Your task to perform on an android device: turn off location history Image 0: 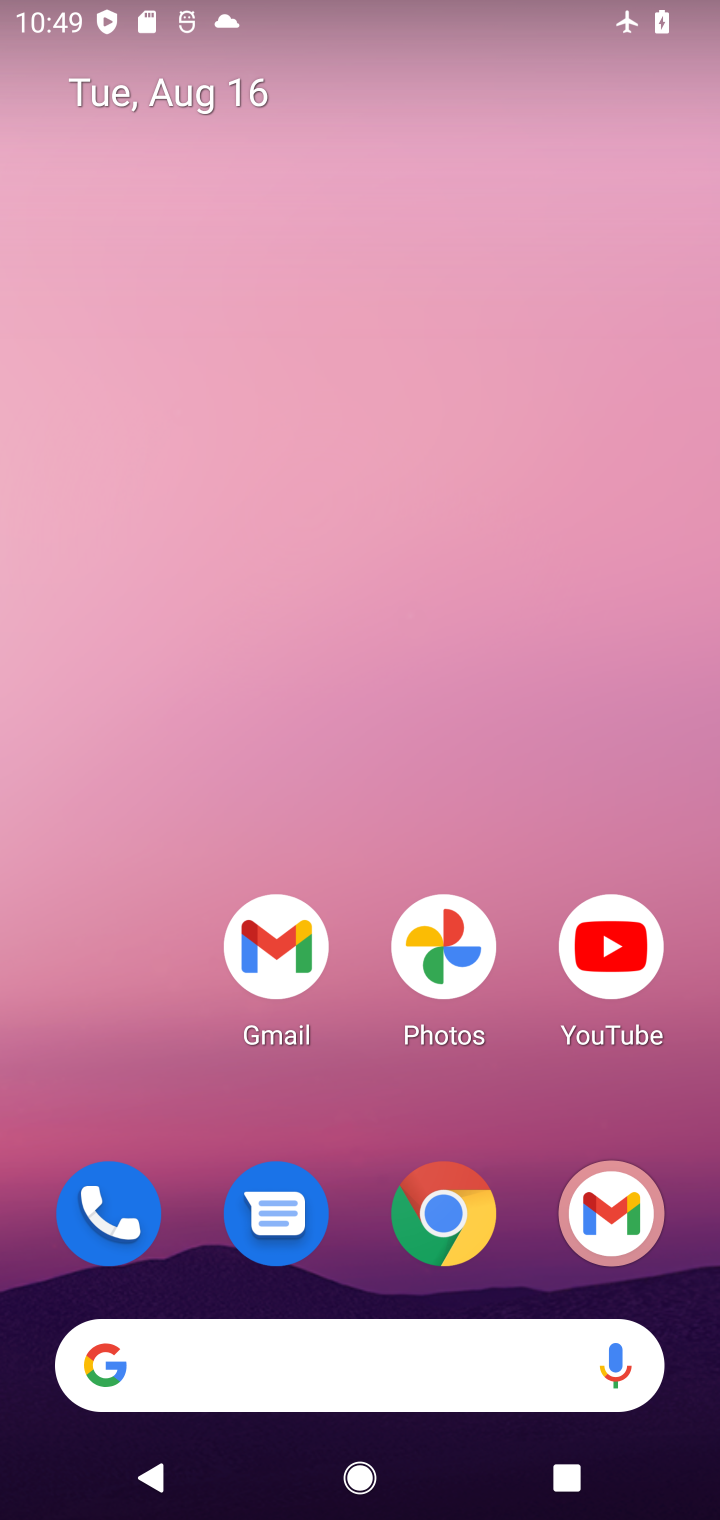
Step 0: drag from (397, 990) to (423, 466)
Your task to perform on an android device: turn off location history Image 1: 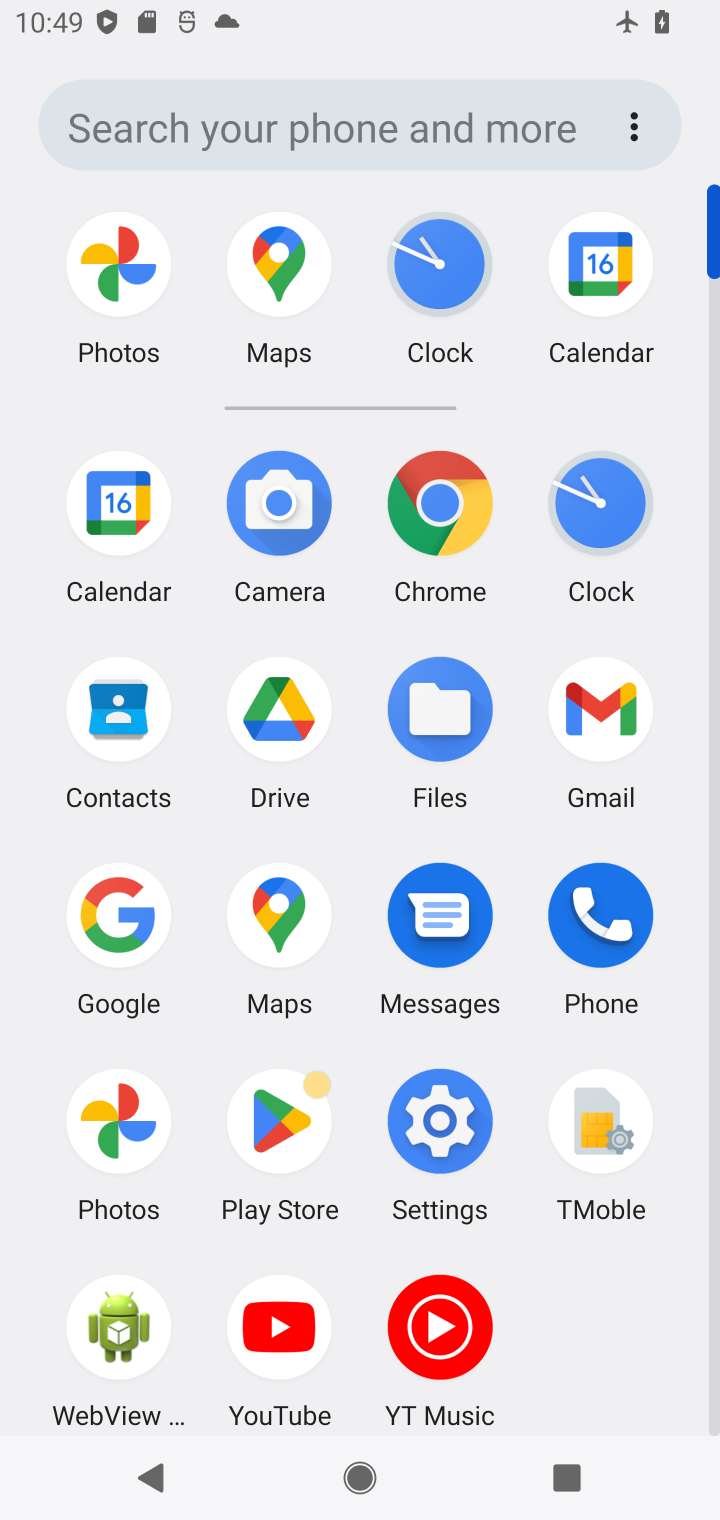
Step 1: click (450, 1101)
Your task to perform on an android device: turn off location history Image 2: 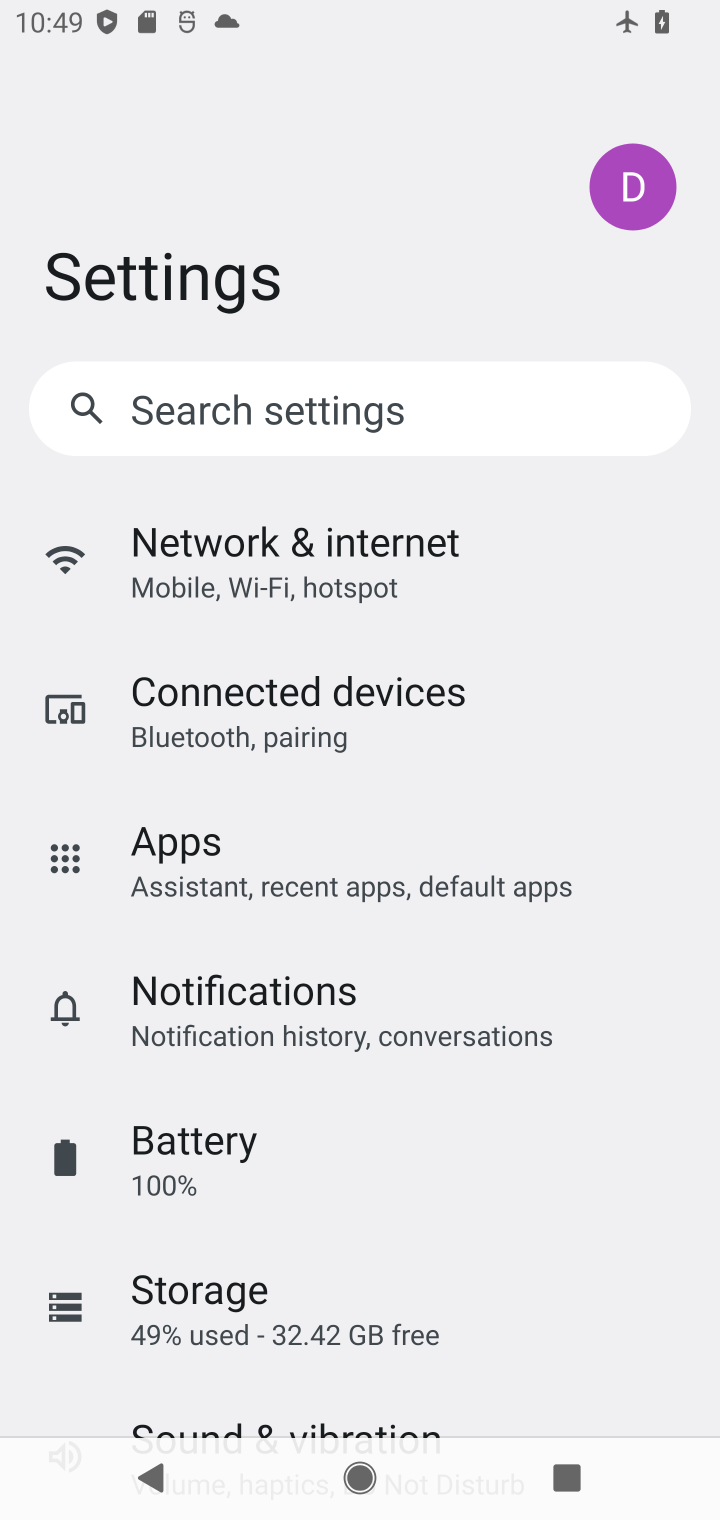
Step 2: drag from (244, 1323) to (311, 493)
Your task to perform on an android device: turn off location history Image 3: 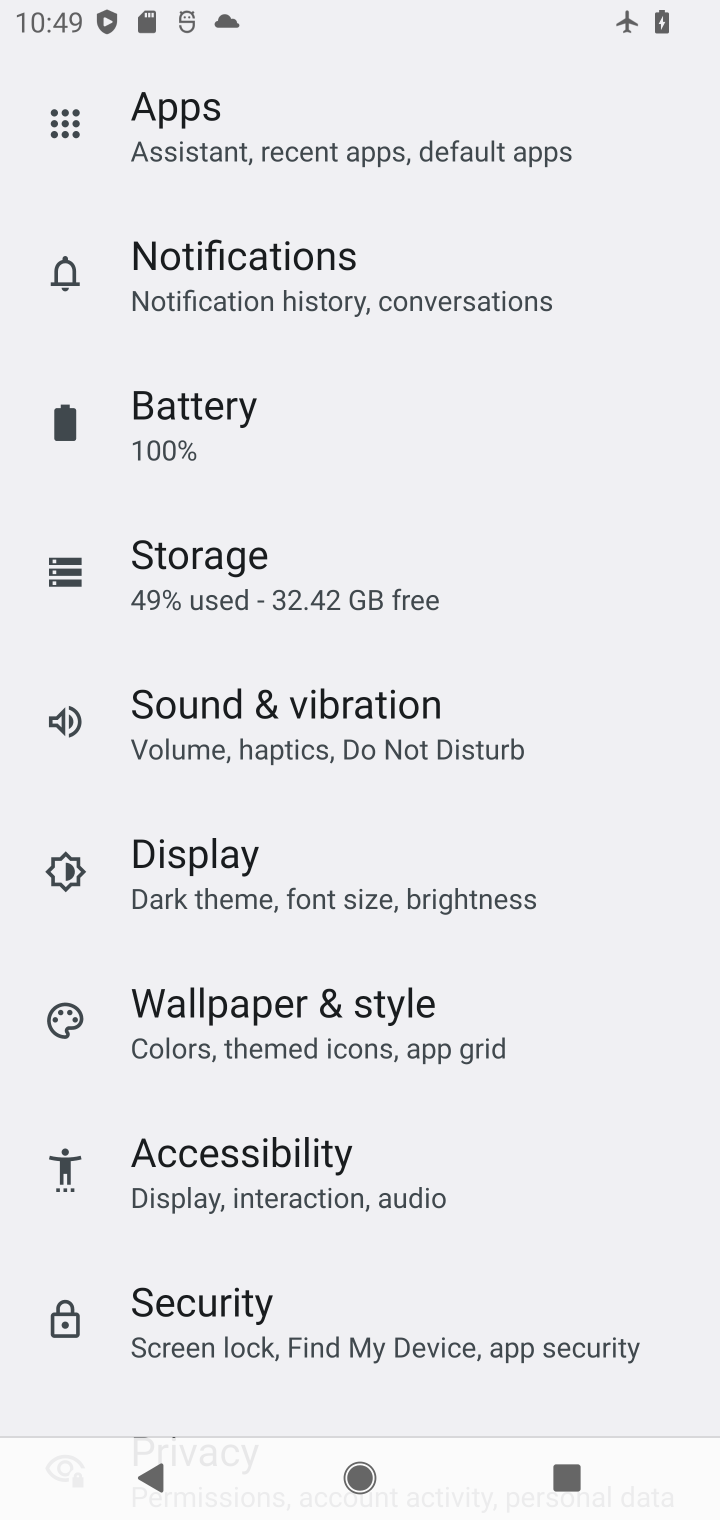
Step 3: drag from (313, 1228) to (363, 328)
Your task to perform on an android device: turn off location history Image 4: 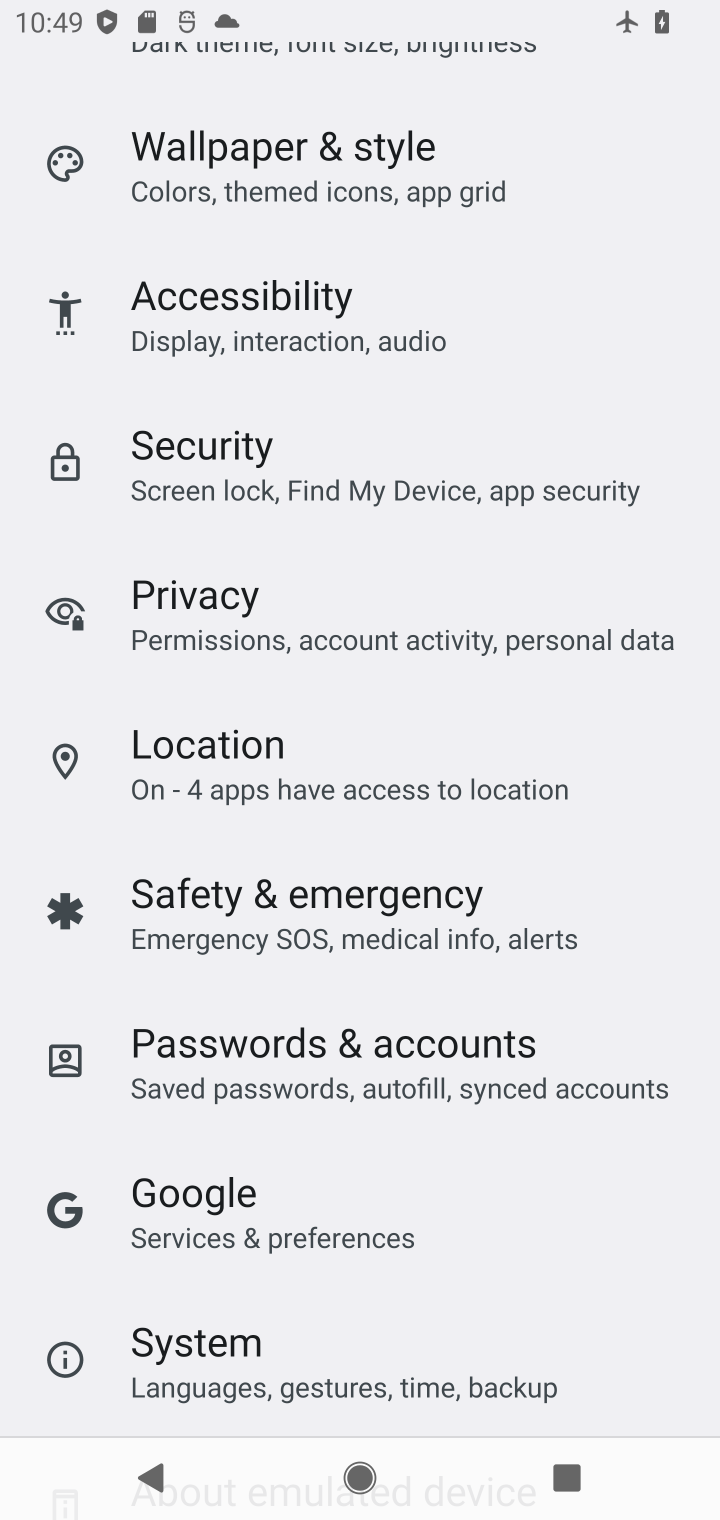
Step 4: click (329, 762)
Your task to perform on an android device: turn off location history Image 5: 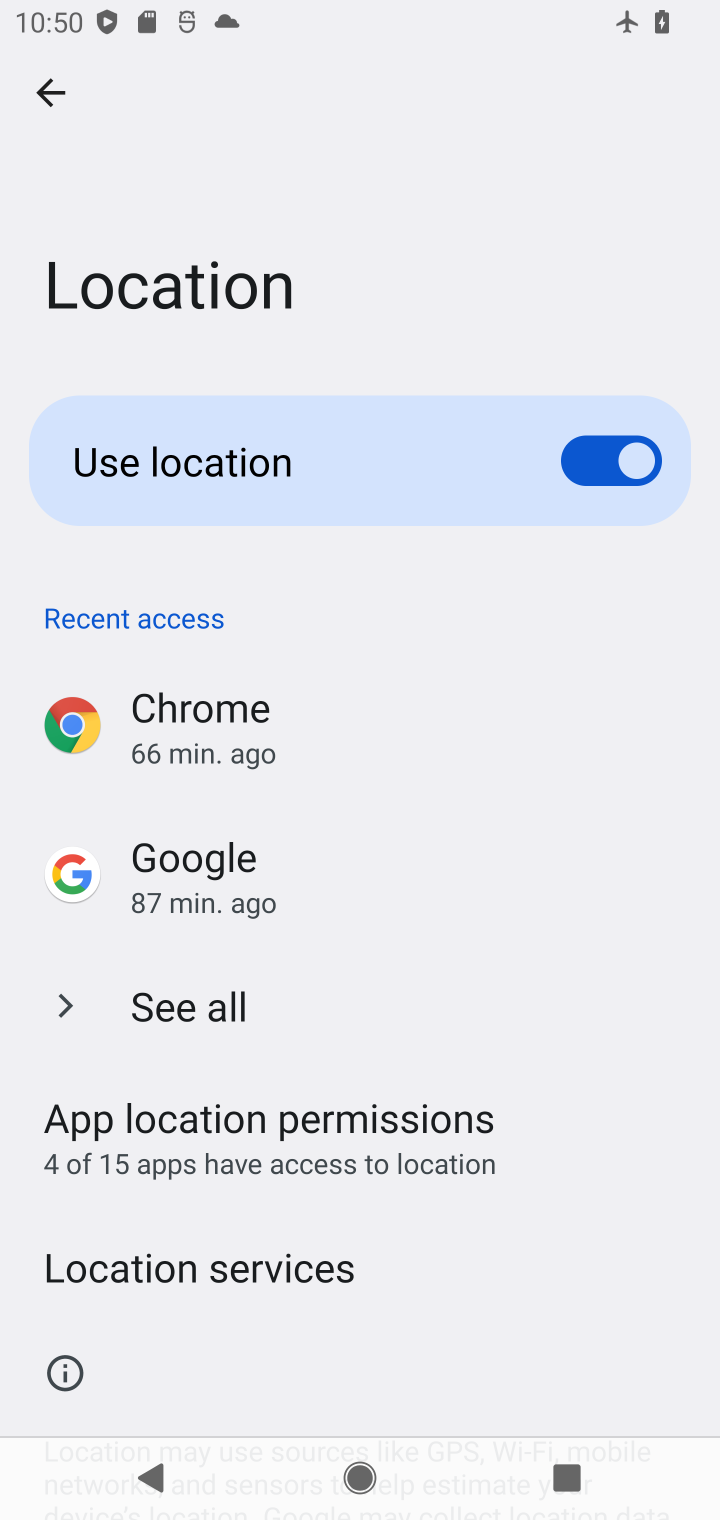
Step 5: click (574, 465)
Your task to perform on an android device: turn off location history Image 6: 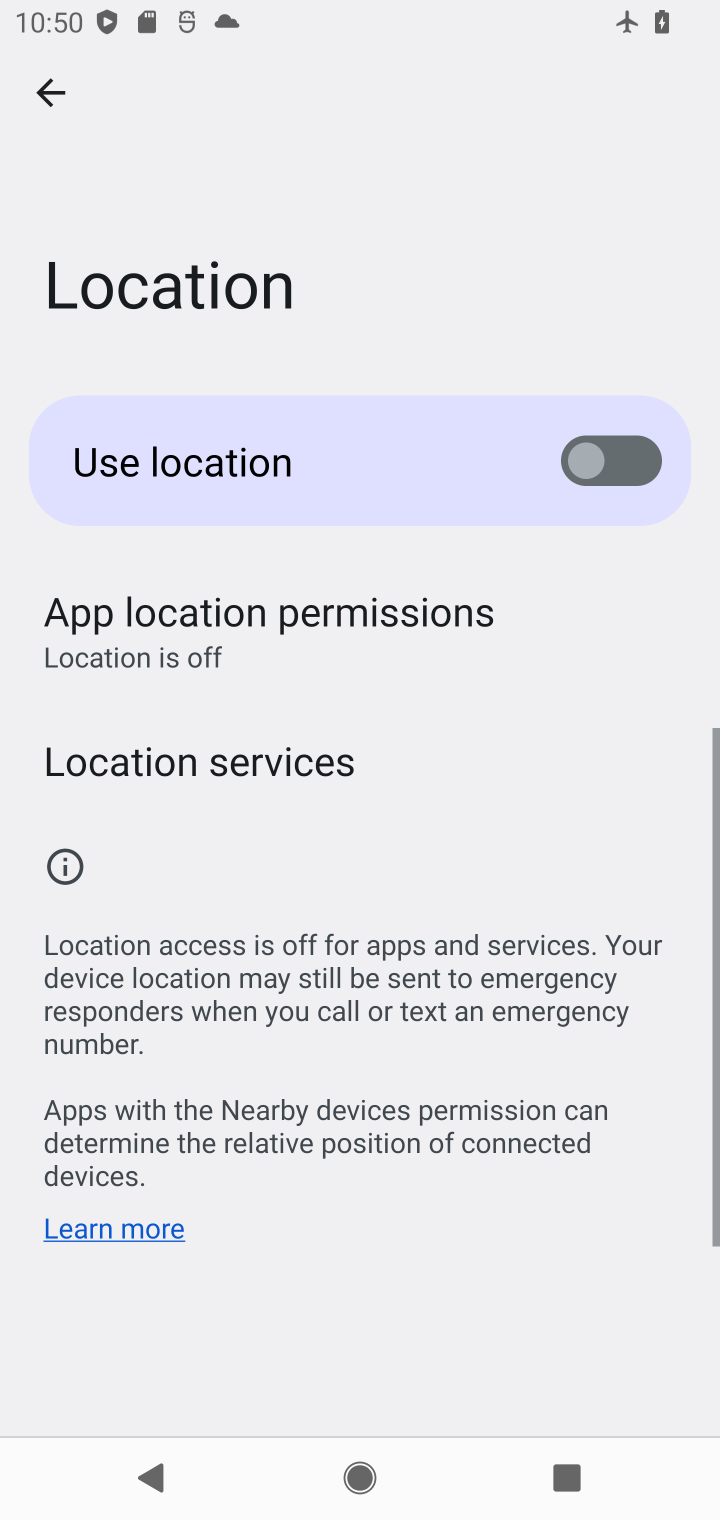
Step 6: task complete